Your task to perform on an android device: turn on notifications settings in the gmail app Image 0: 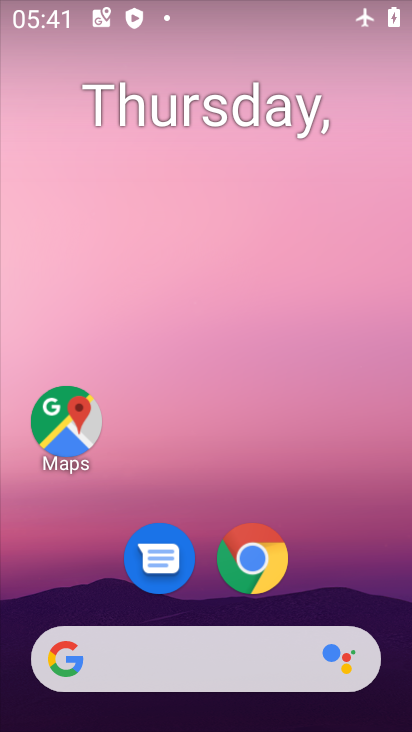
Step 0: drag from (320, 584) to (282, 197)
Your task to perform on an android device: turn on notifications settings in the gmail app Image 1: 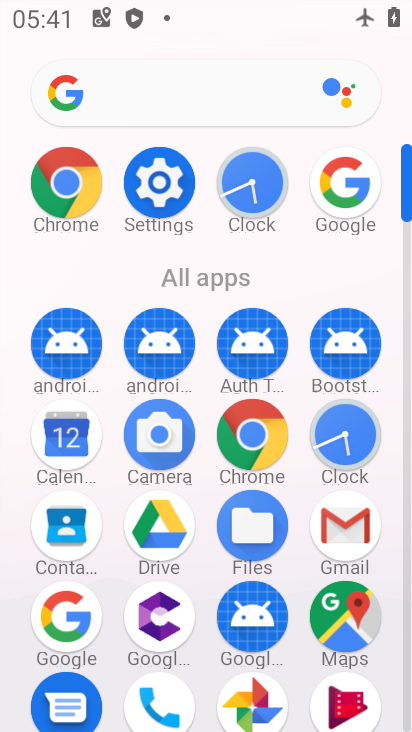
Step 1: click (335, 531)
Your task to perform on an android device: turn on notifications settings in the gmail app Image 2: 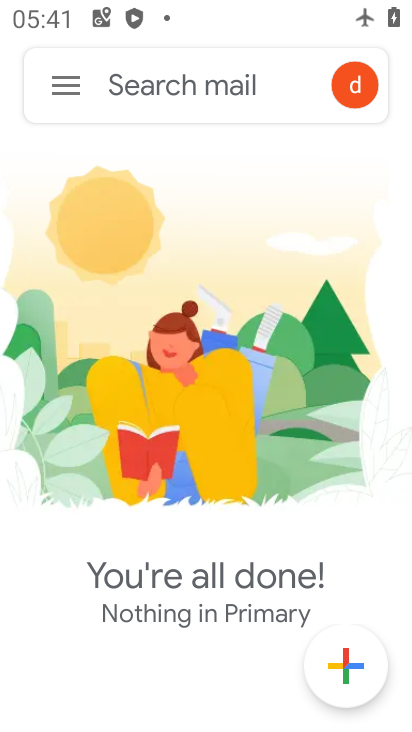
Step 2: click (71, 90)
Your task to perform on an android device: turn on notifications settings in the gmail app Image 3: 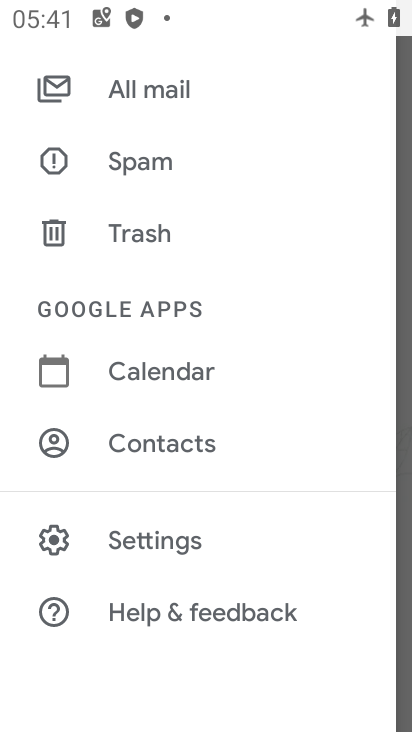
Step 3: click (170, 542)
Your task to perform on an android device: turn on notifications settings in the gmail app Image 4: 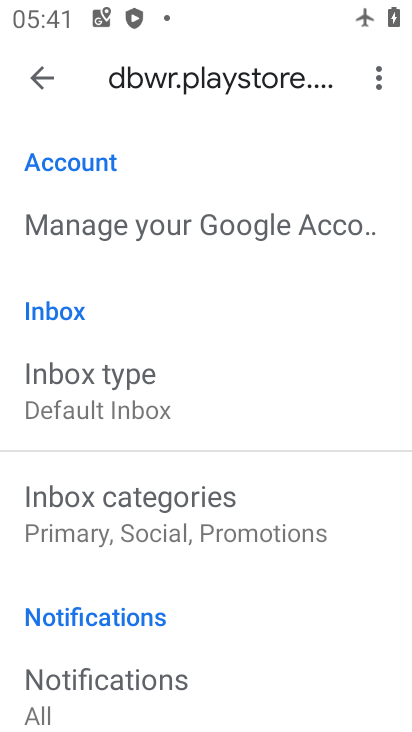
Step 4: click (169, 399)
Your task to perform on an android device: turn on notifications settings in the gmail app Image 5: 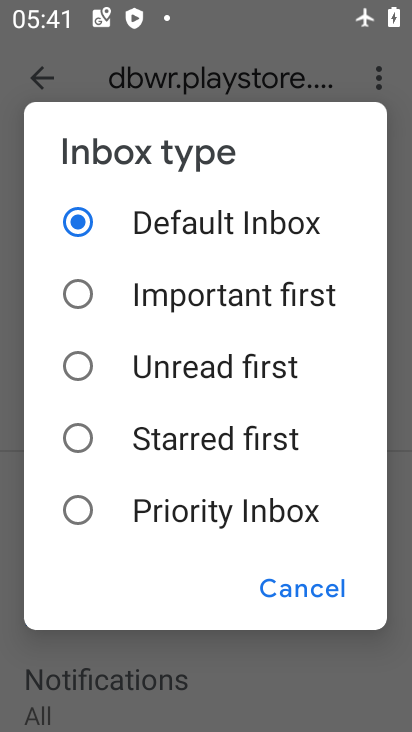
Step 5: drag from (226, 560) to (249, 384)
Your task to perform on an android device: turn on notifications settings in the gmail app Image 6: 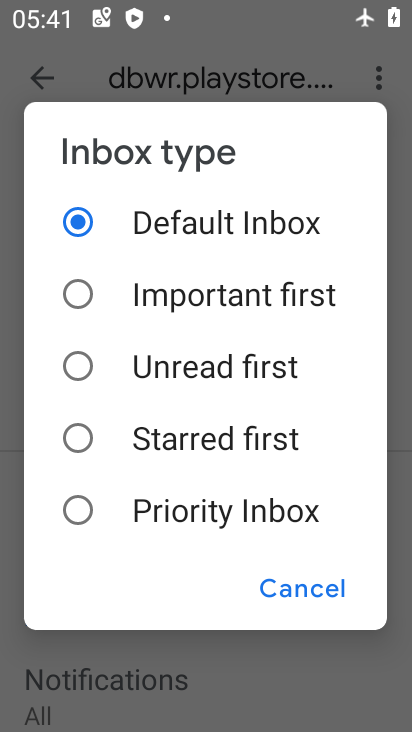
Step 6: click (300, 603)
Your task to perform on an android device: turn on notifications settings in the gmail app Image 7: 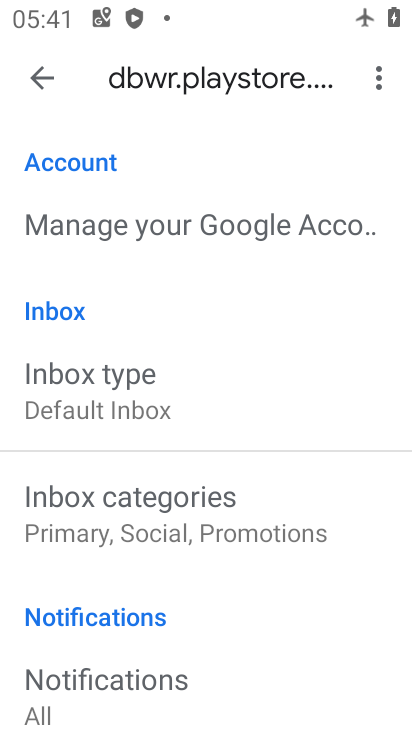
Step 7: drag from (253, 660) to (238, 441)
Your task to perform on an android device: turn on notifications settings in the gmail app Image 8: 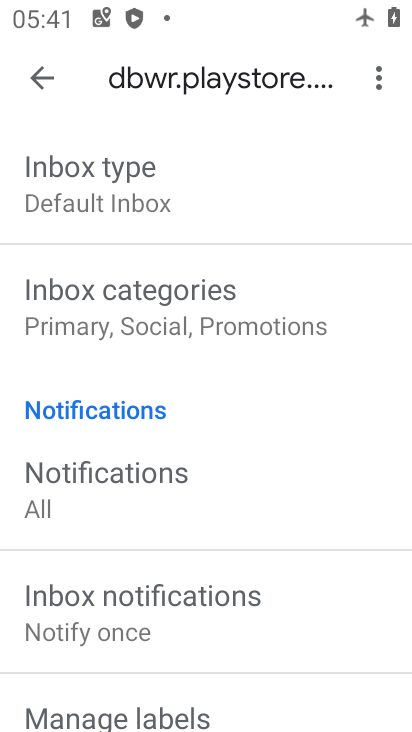
Step 8: click (107, 501)
Your task to perform on an android device: turn on notifications settings in the gmail app Image 9: 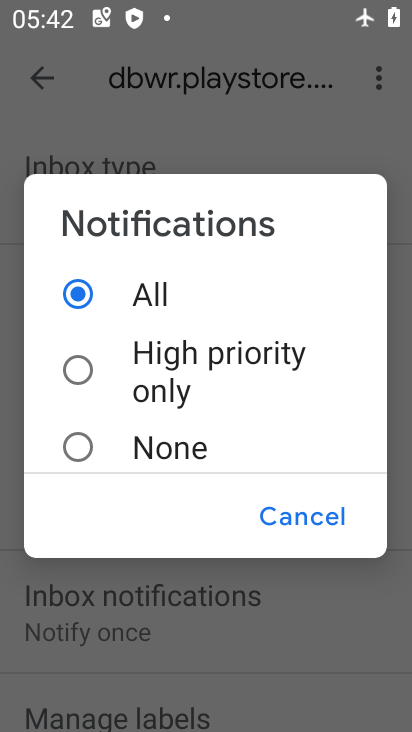
Step 9: task complete